Your task to perform on an android device: toggle improve location accuracy Image 0: 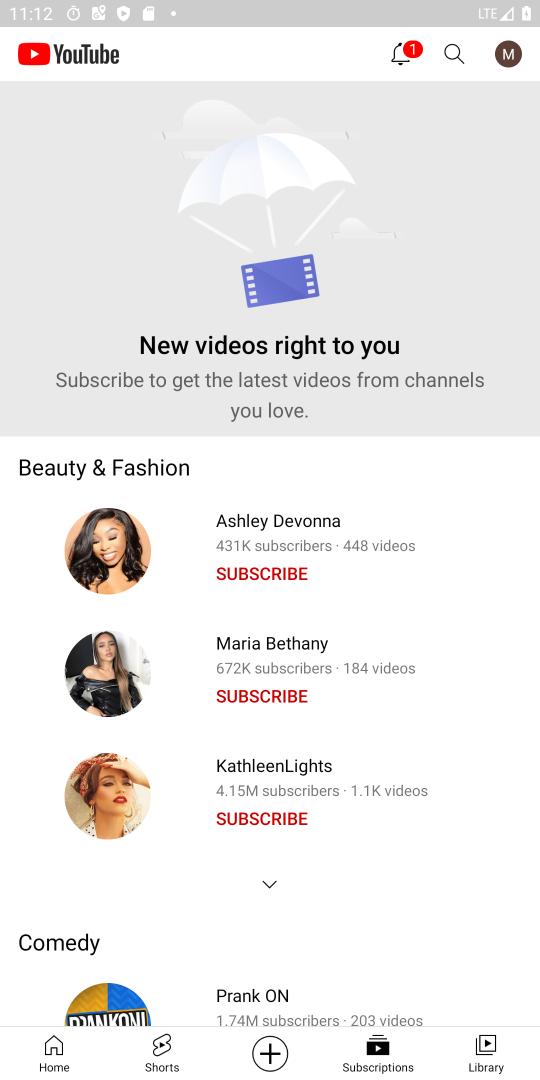
Step 0: press home button
Your task to perform on an android device: toggle improve location accuracy Image 1: 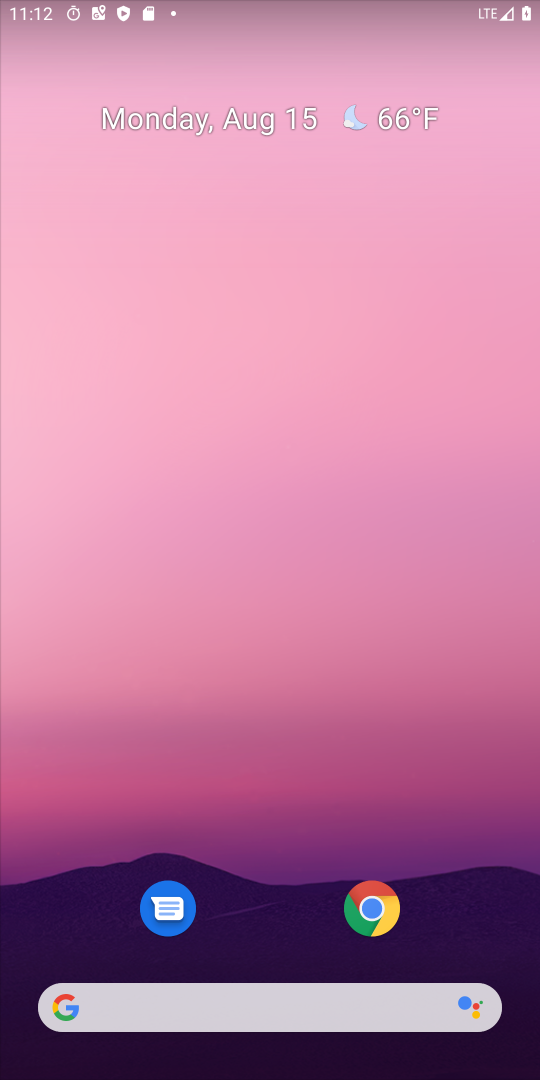
Step 1: drag from (237, 950) to (275, 220)
Your task to perform on an android device: toggle improve location accuracy Image 2: 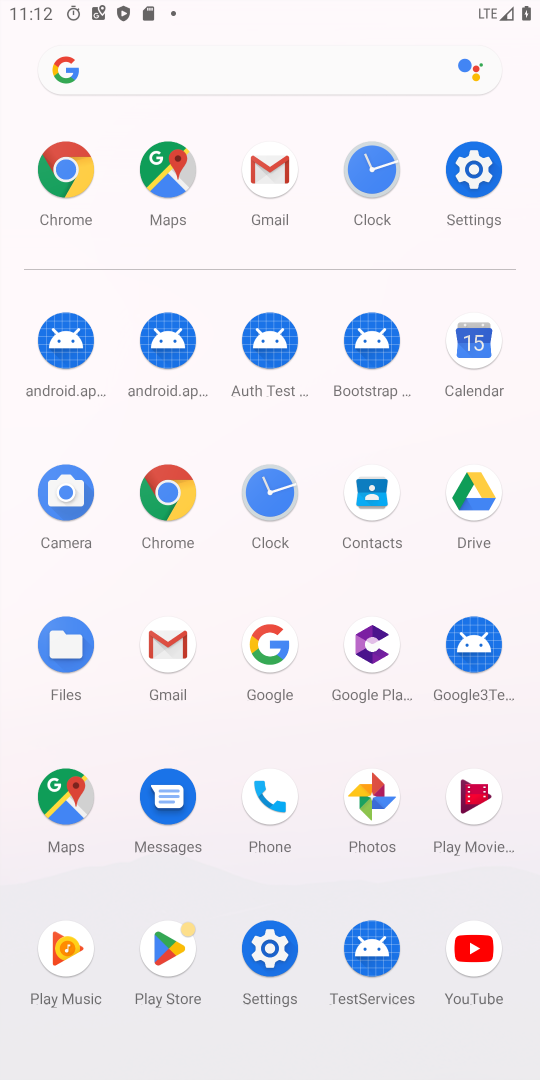
Step 2: click (455, 187)
Your task to perform on an android device: toggle improve location accuracy Image 3: 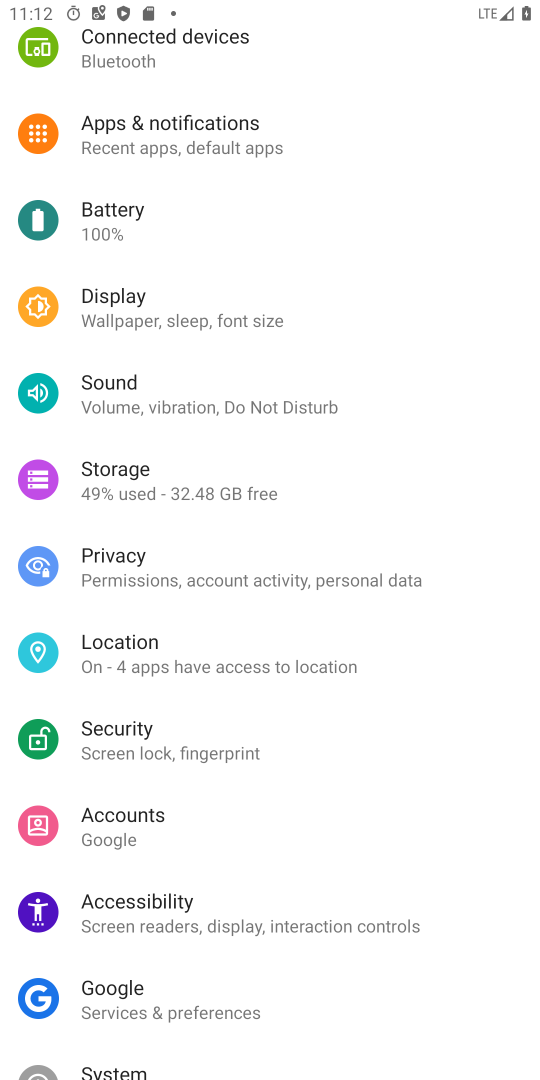
Step 3: click (125, 642)
Your task to perform on an android device: toggle improve location accuracy Image 4: 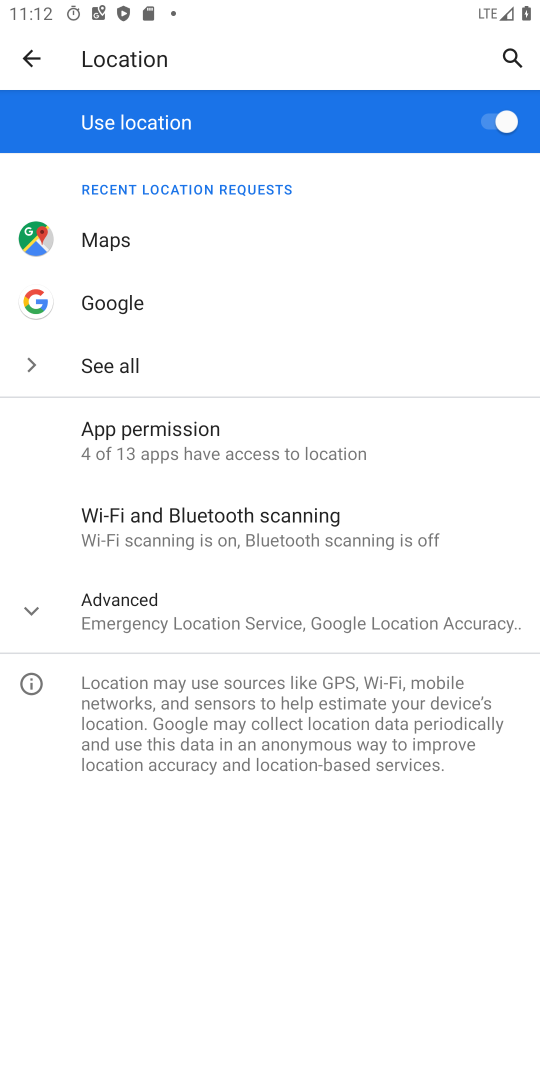
Step 4: click (125, 642)
Your task to perform on an android device: toggle improve location accuracy Image 5: 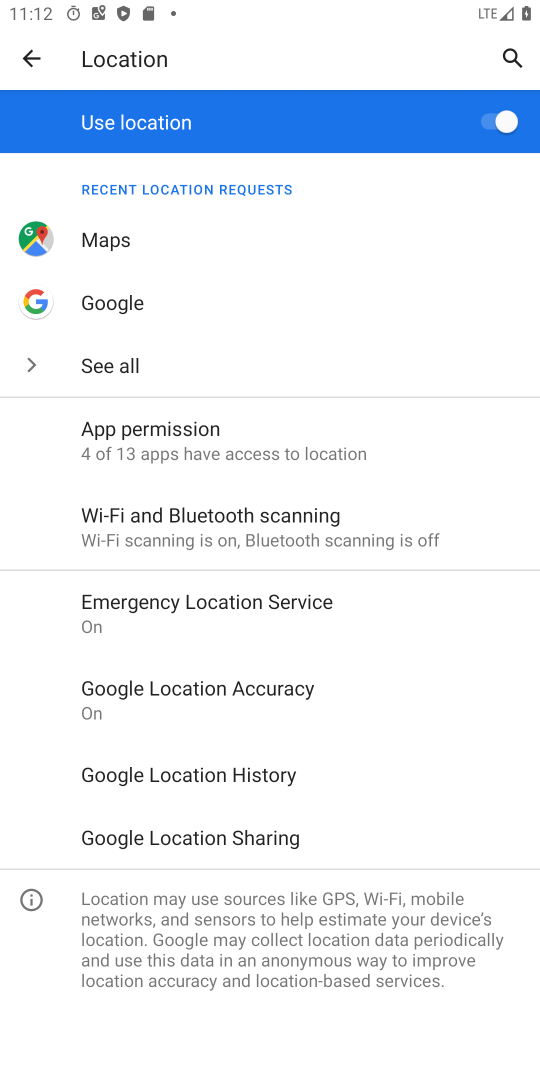
Step 5: click (155, 682)
Your task to perform on an android device: toggle improve location accuracy Image 6: 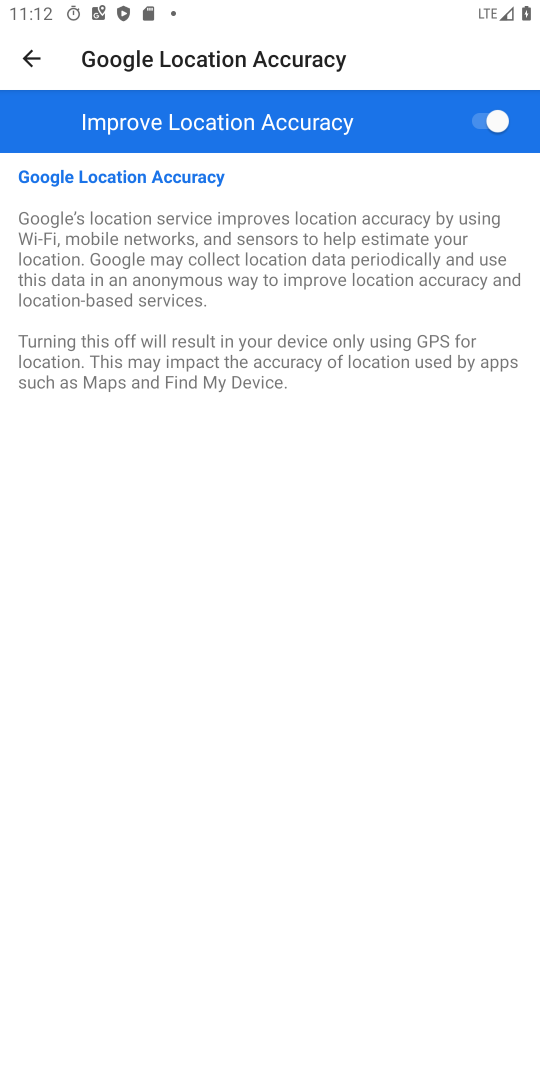
Step 6: click (502, 128)
Your task to perform on an android device: toggle improve location accuracy Image 7: 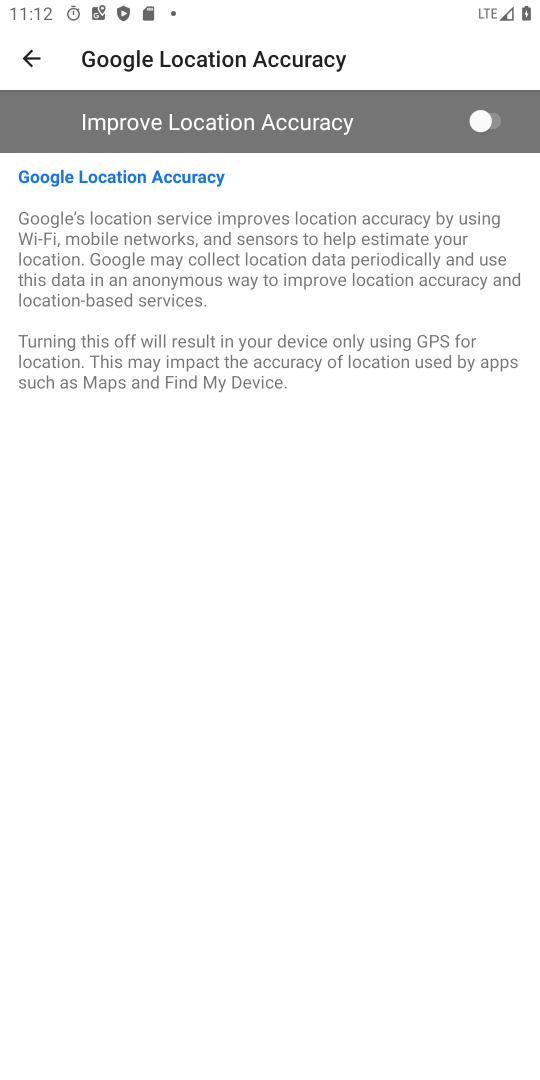
Step 7: click (502, 128)
Your task to perform on an android device: toggle improve location accuracy Image 8: 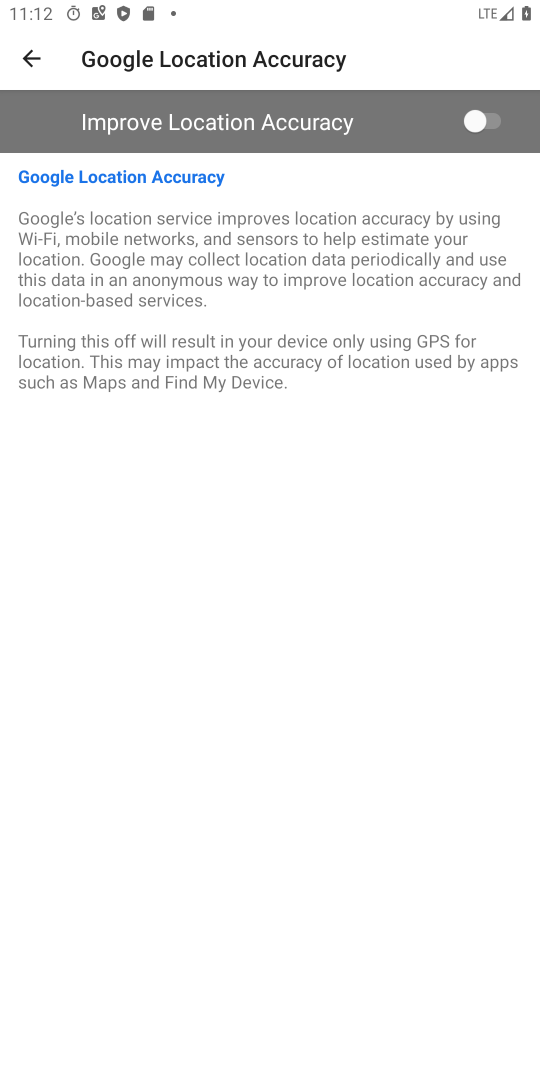
Step 8: click (502, 128)
Your task to perform on an android device: toggle improve location accuracy Image 9: 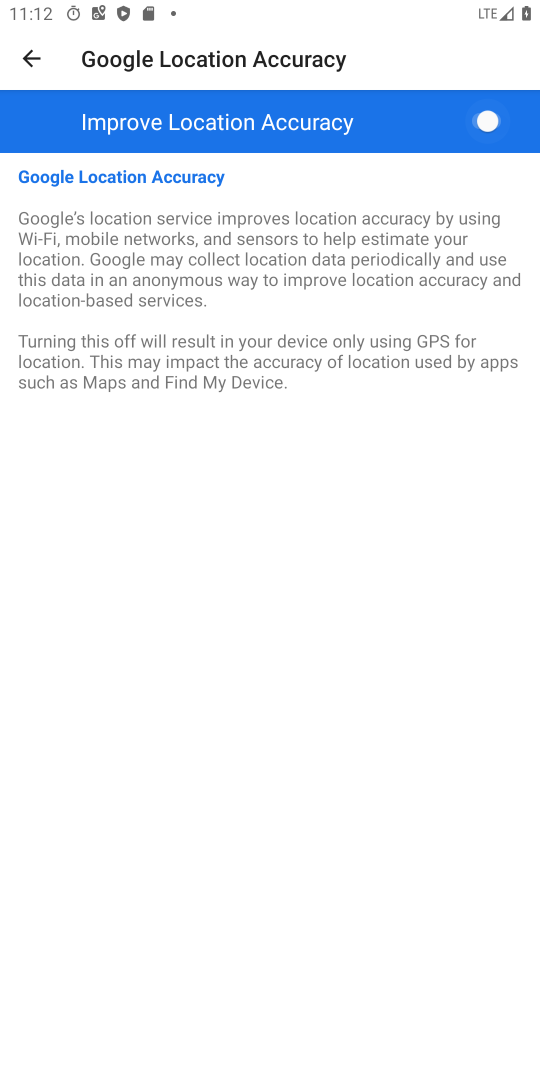
Step 9: click (502, 128)
Your task to perform on an android device: toggle improve location accuracy Image 10: 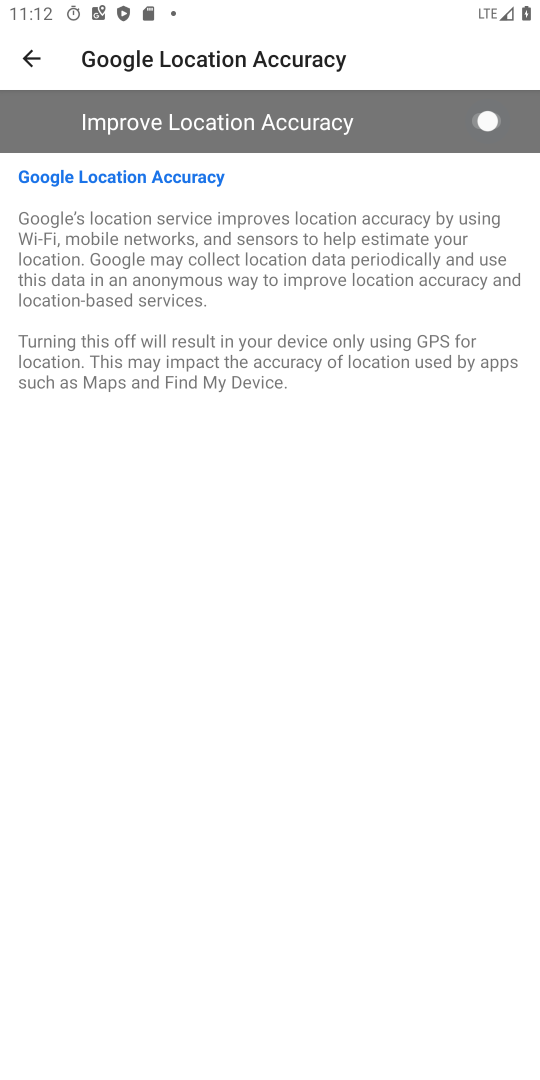
Step 10: click (502, 128)
Your task to perform on an android device: toggle improve location accuracy Image 11: 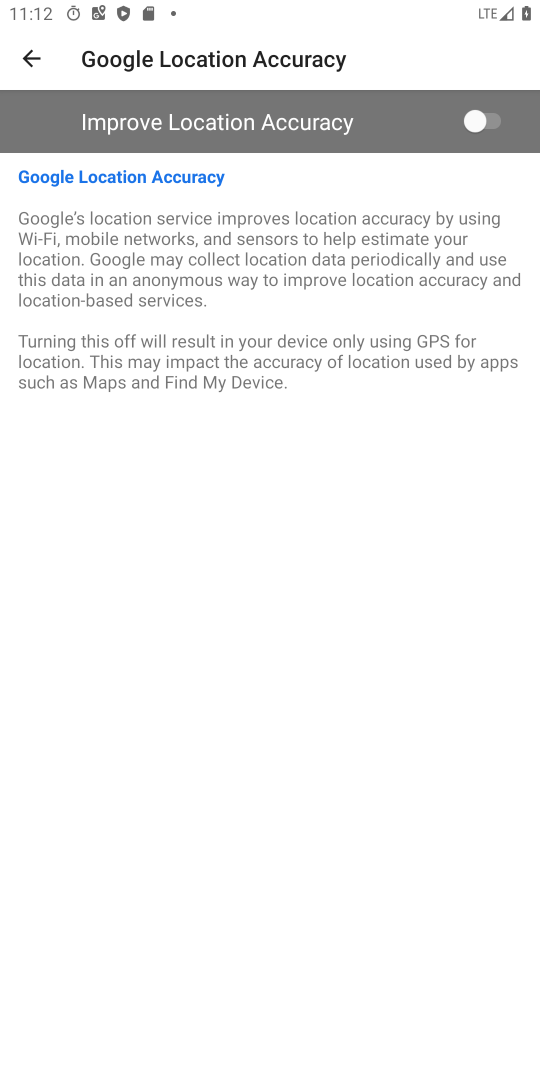
Step 11: task complete